Your task to perform on an android device: Open calendar and show me the second week of next month Image 0: 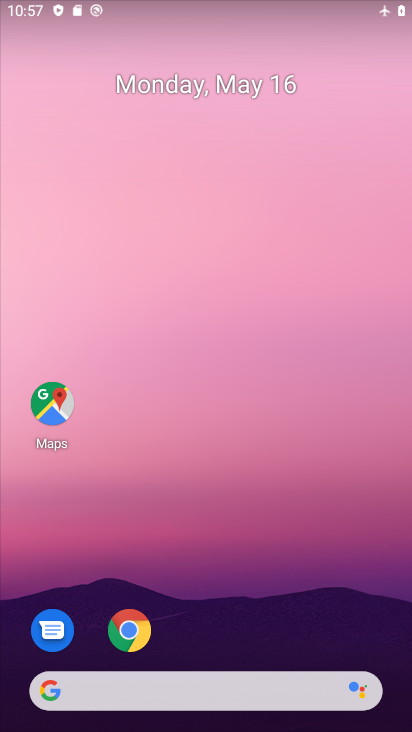
Step 0: drag from (273, 618) to (216, 120)
Your task to perform on an android device: Open calendar and show me the second week of next month Image 1: 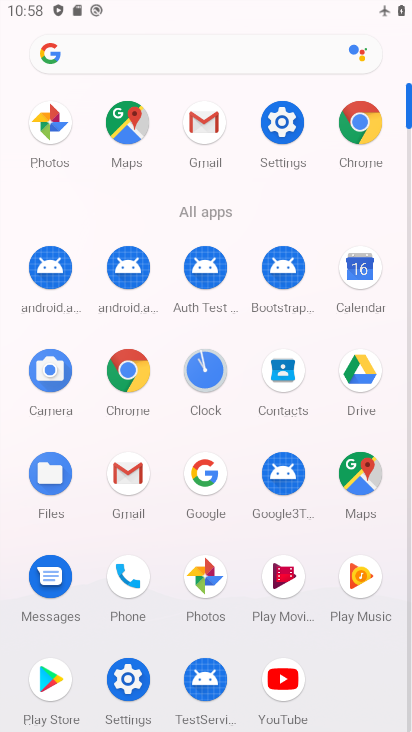
Step 1: click (361, 263)
Your task to perform on an android device: Open calendar and show me the second week of next month Image 2: 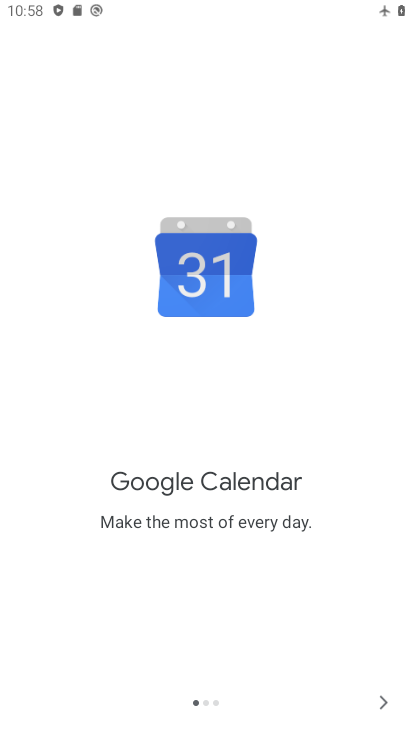
Step 2: click (383, 695)
Your task to perform on an android device: Open calendar and show me the second week of next month Image 3: 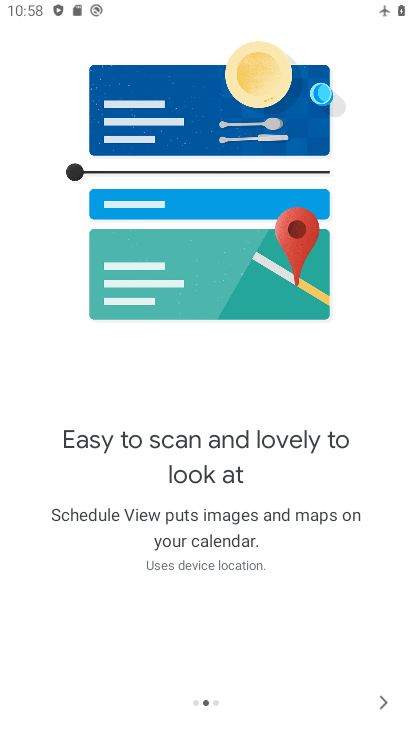
Step 3: click (383, 695)
Your task to perform on an android device: Open calendar and show me the second week of next month Image 4: 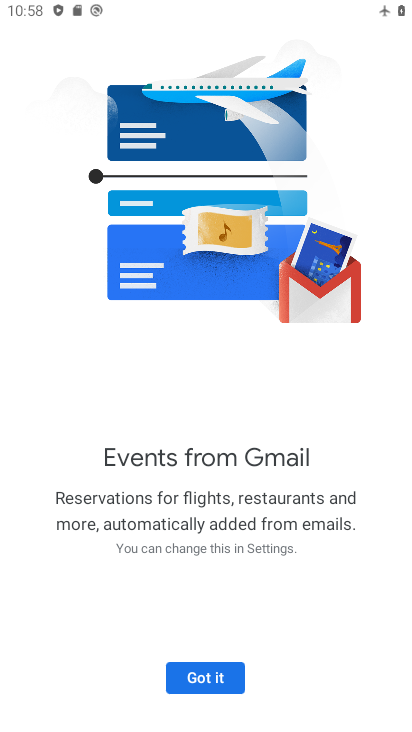
Step 4: click (216, 674)
Your task to perform on an android device: Open calendar and show me the second week of next month Image 5: 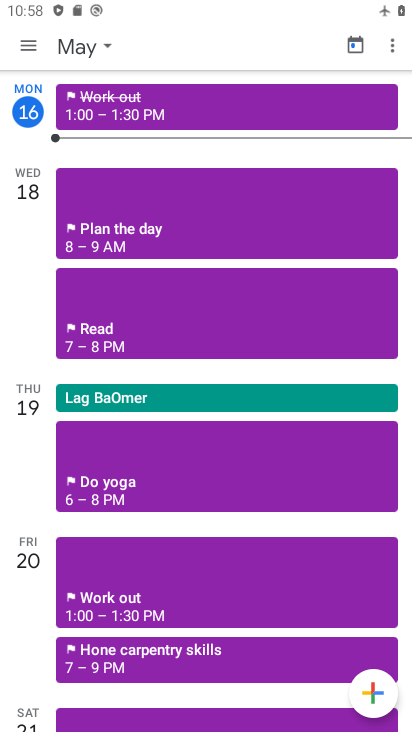
Step 5: click (28, 50)
Your task to perform on an android device: Open calendar and show me the second week of next month Image 6: 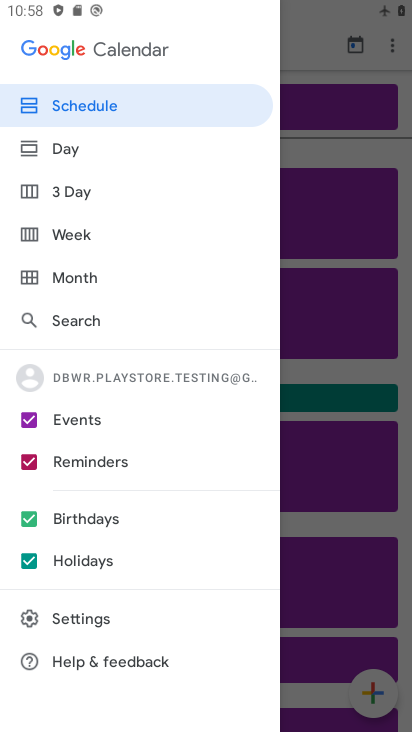
Step 6: click (76, 238)
Your task to perform on an android device: Open calendar and show me the second week of next month Image 7: 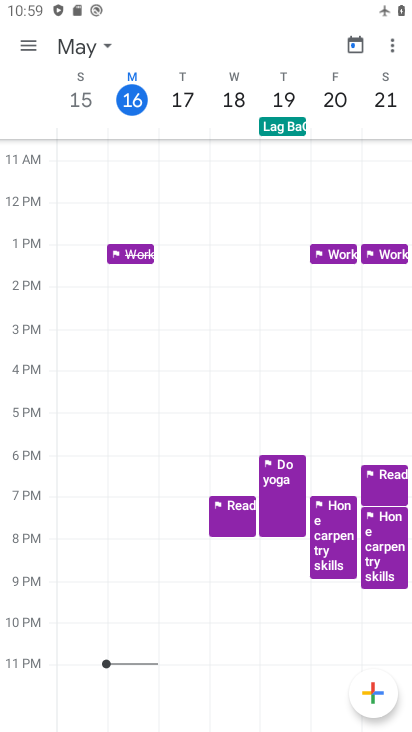
Step 7: click (88, 49)
Your task to perform on an android device: Open calendar and show me the second week of next month Image 8: 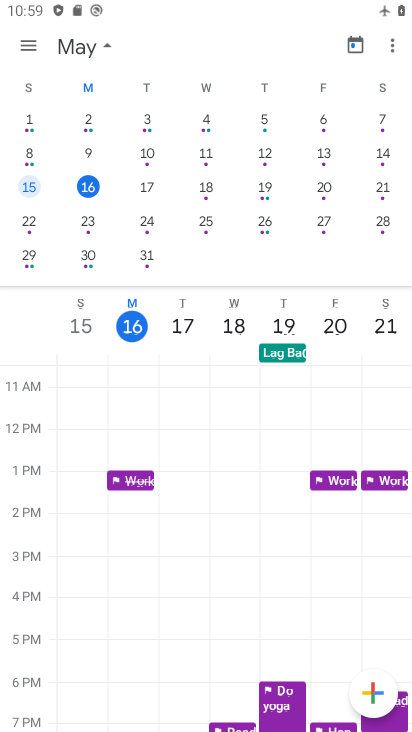
Step 8: drag from (366, 207) to (5, 243)
Your task to perform on an android device: Open calendar and show me the second week of next month Image 9: 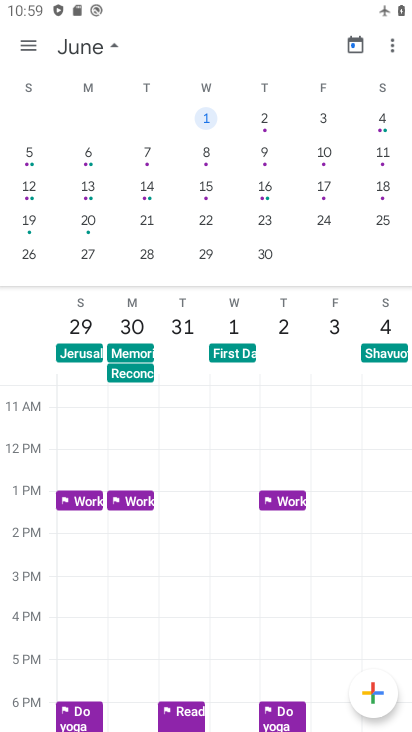
Step 9: click (151, 180)
Your task to perform on an android device: Open calendar and show me the second week of next month Image 10: 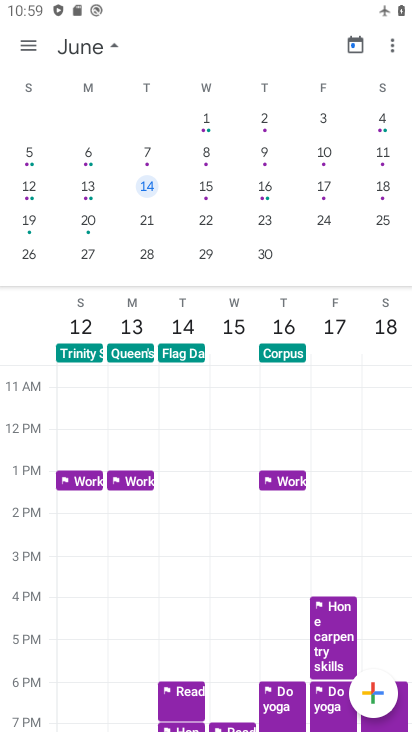
Step 10: task complete